Your task to perform on an android device: check battery use Image 0: 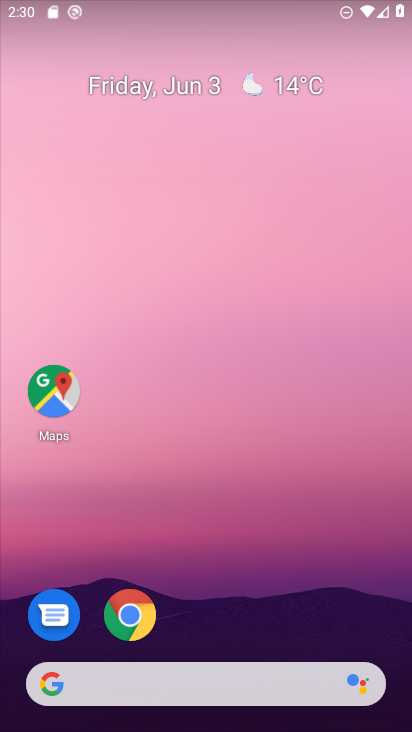
Step 0: click (272, 42)
Your task to perform on an android device: check battery use Image 1: 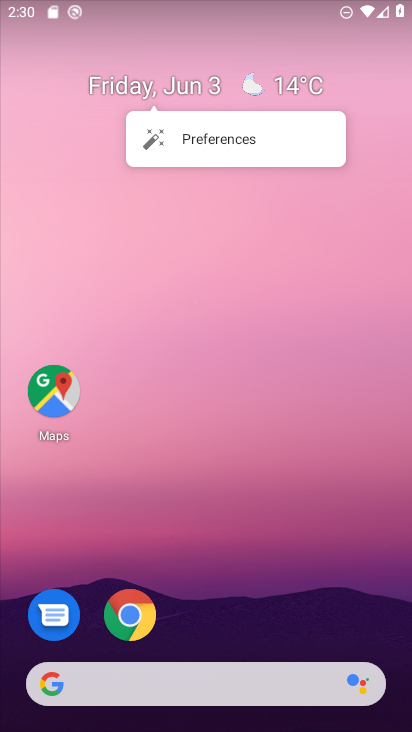
Step 1: drag from (190, 616) to (236, 218)
Your task to perform on an android device: check battery use Image 2: 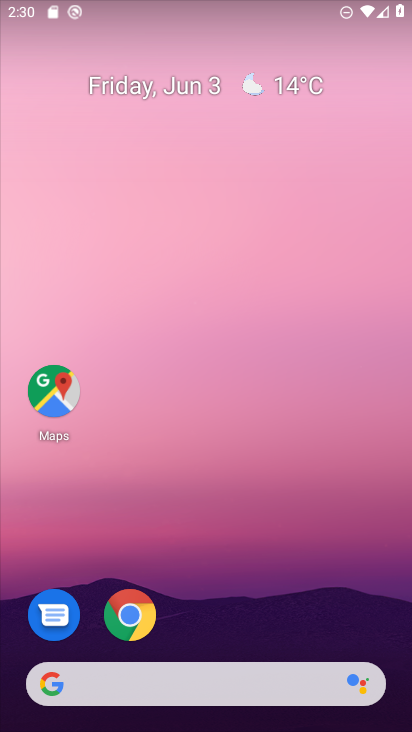
Step 2: drag from (187, 639) to (181, 290)
Your task to perform on an android device: check battery use Image 3: 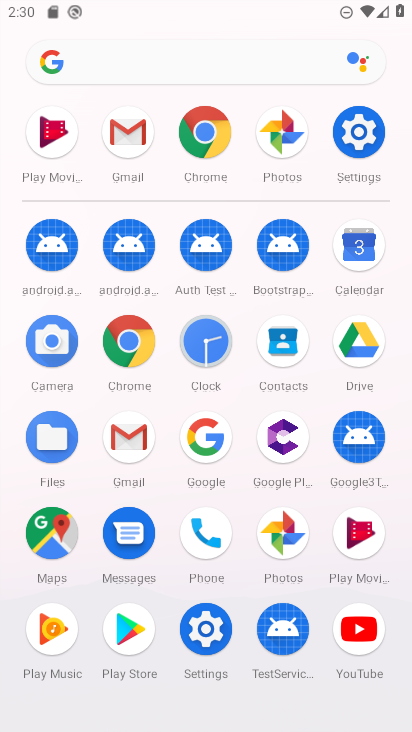
Step 3: click (358, 118)
Your task to perform on an android device: check battery use Image 4: 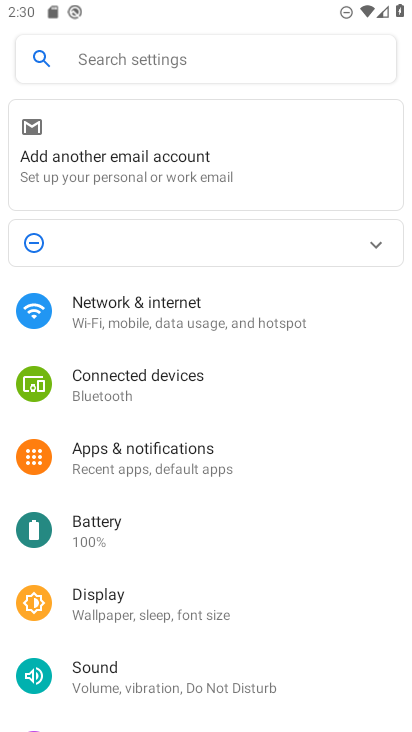
Step 4: drag from (153, 546) to (184, 352)
Your task to perform on an android device: check battery use Image 5: 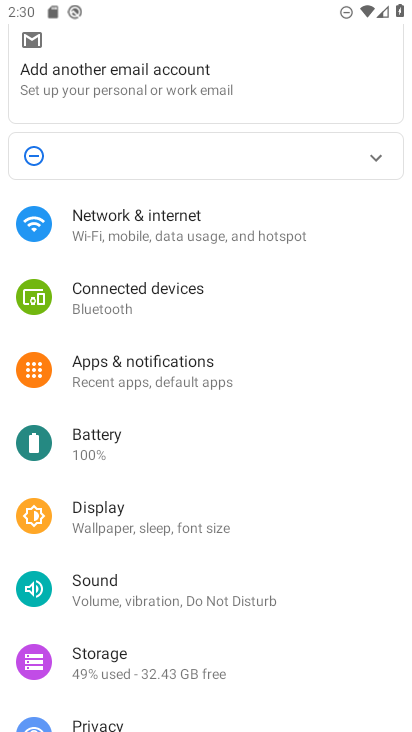
Step 5: click (130, 429)
Your task to perform on an android device: check battery use Image 6: 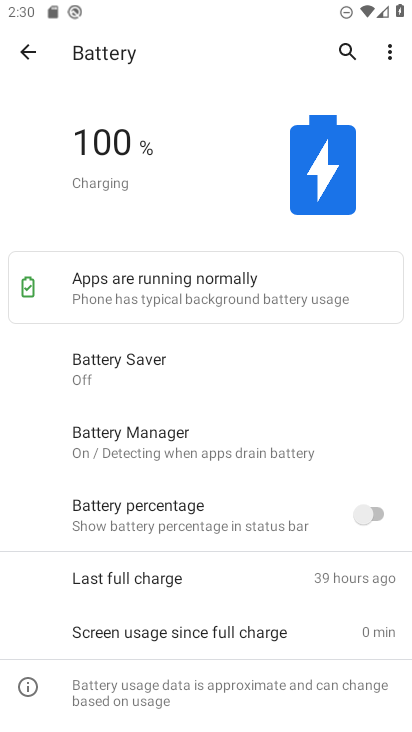
Step 6: drag from (195, 503) to (247, 60)
Your task to perform on an android device: check battery use Image 7: 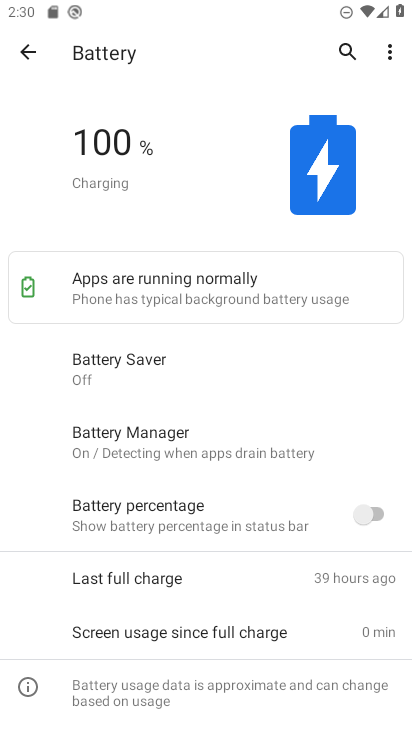
Step 7: click (392, 58)
Your task to perform on an android device: check battery use Image 8: 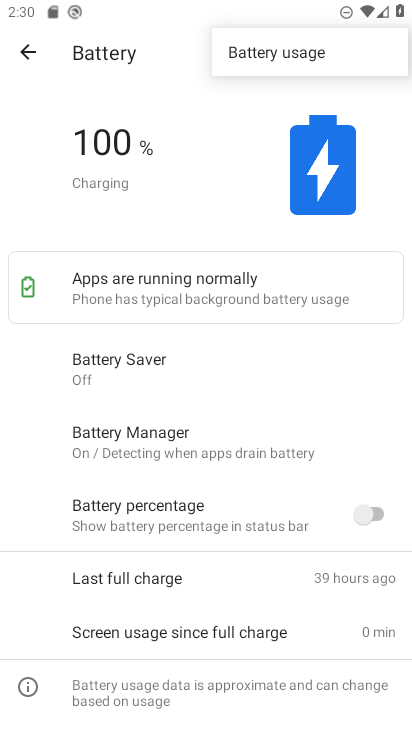
Step 8: click (207, 36)
Your task to perform on an android device: check battery use Image 9: 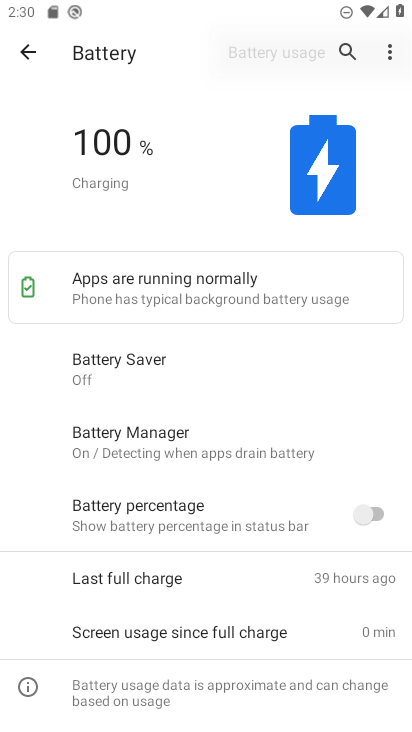
Step 9: click (239, 41)
Your task to perform on an android device: check battery use Image 10: 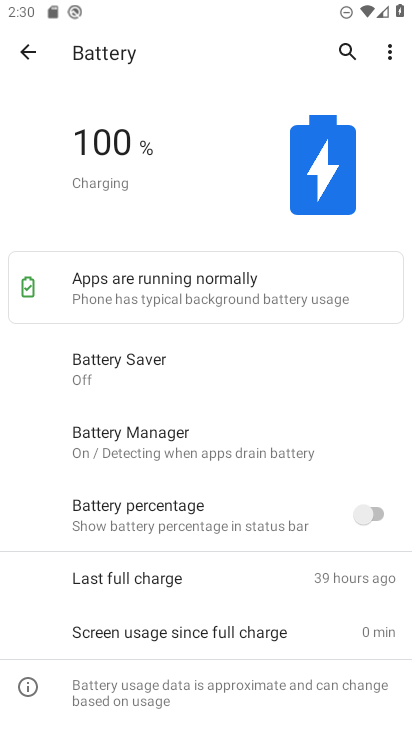
Step 10: drag from (288, 325) to (296, 37)
Your task to perform on an android device: check battery use Image 11: 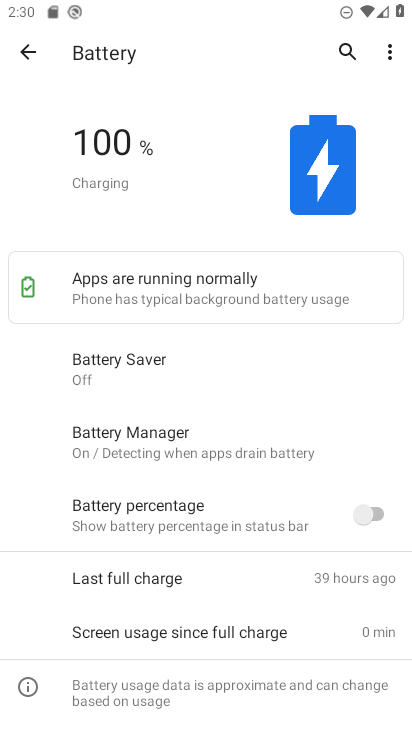
Step 11: click (393, 58)
Your task to perform on an android device: check battery use Image 12: 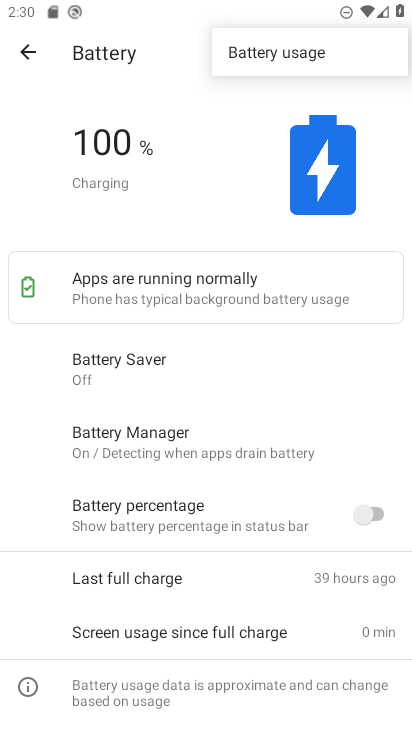
Step 12: click (289, 60)
Your task to perform on an android device: check battery use Image 13: 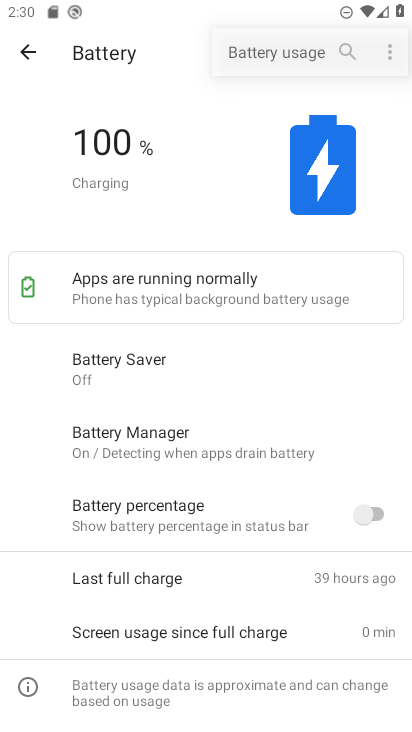
Step 13: task complete